Your task to perform on an android device: Go to Maps Image 0: 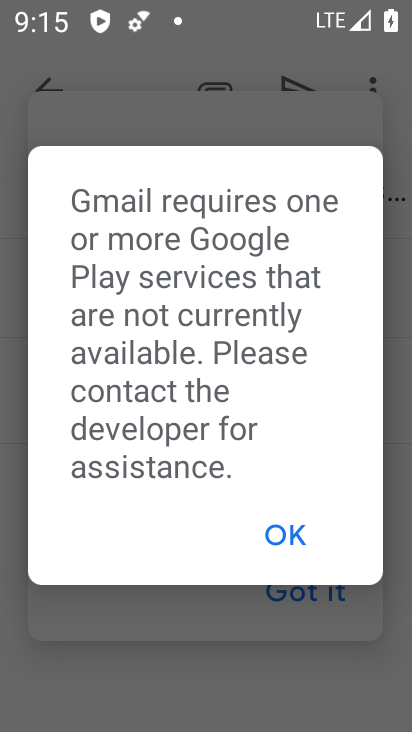
Step 0: press home button
Your task to perform on an android device: Go to Maps Image 1: 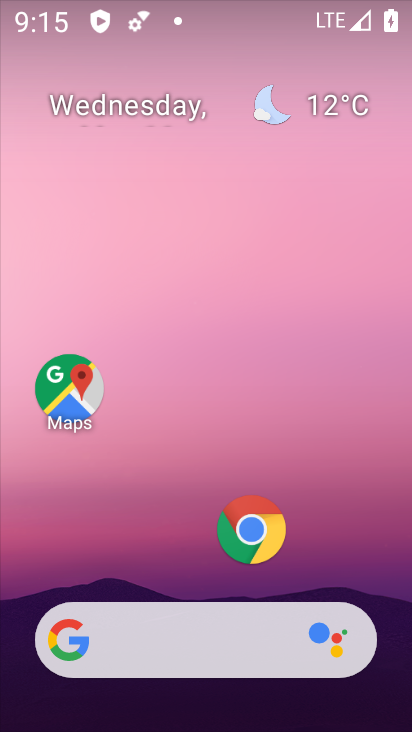
Step 1: click (76, 381)
Your task to perform on an android device: Go to Maps Image 2: 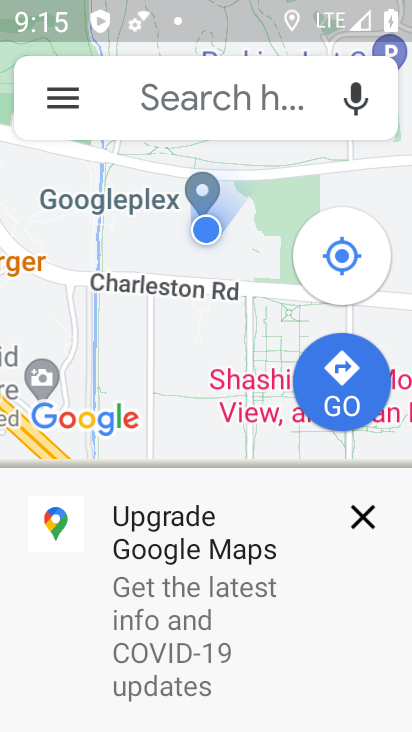
Step 2: click (364, 521)
Your task to perform on an android device: Go to Maps Image 3: 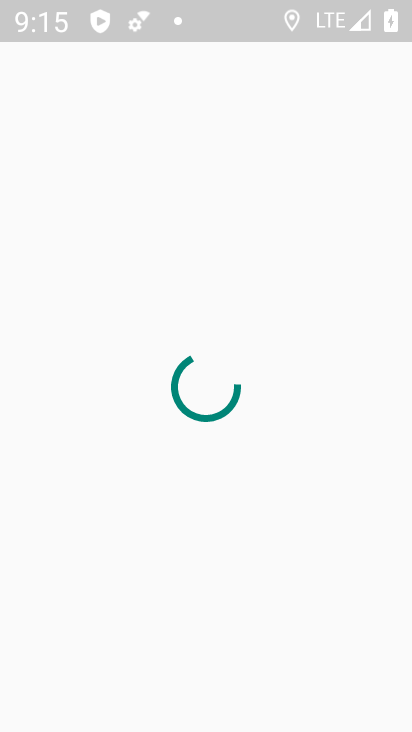
Step 3: task complete